Your task to perform on an android device: Open Google Chrome and click the shortcut for Amazon.com Image 0: 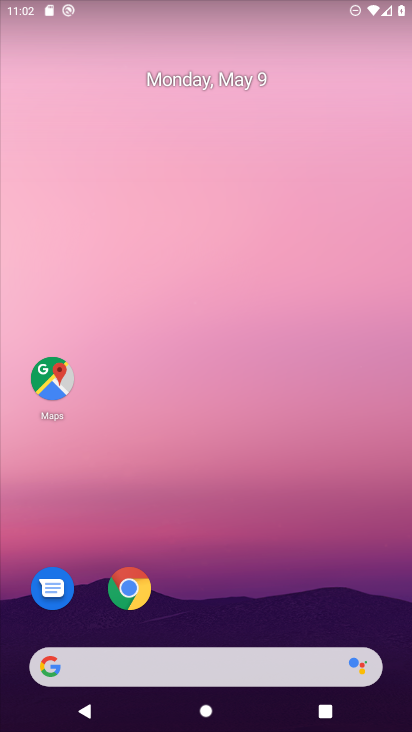
Step 0: click (134, 604)
Your task to perform on an android device: Open Google Chrome and click the shortcut for Amazon.com Image 1: 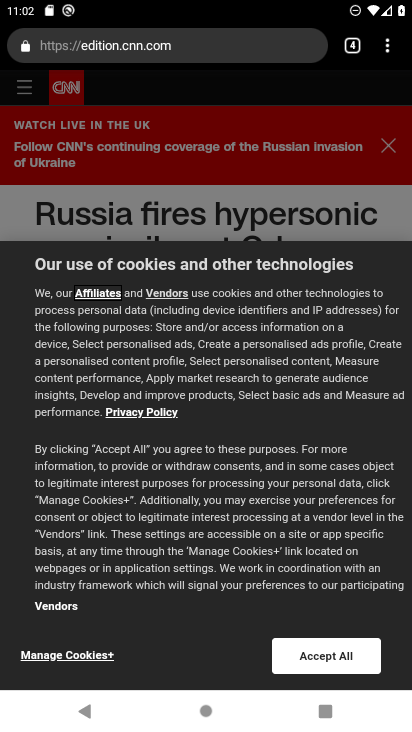
Step 1: click (355, 49)
Your task to perform on an android device: Open Google Chrome and click the shortcut for Amazon.com Image 2: 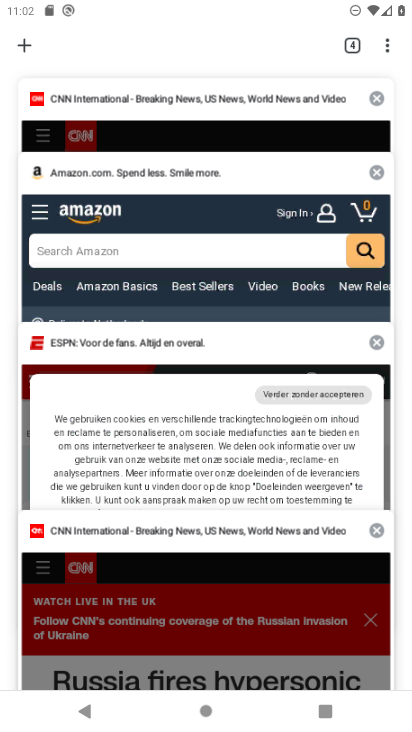
Step 2: click (31, 46)
Your task to perform on an android device: Open Google Chrome and click the shortcut for Amazon.com Image 3: 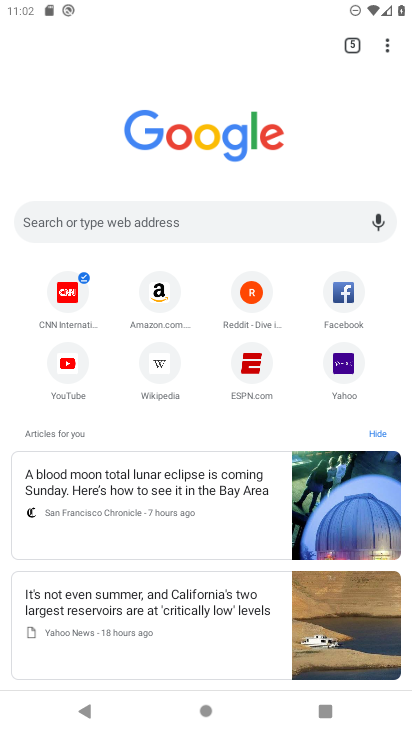
Step 3: click (159, 305)
Your task to perform on an android device: Open Google Chrome and click the shortcut for Amazon.com Image 4: 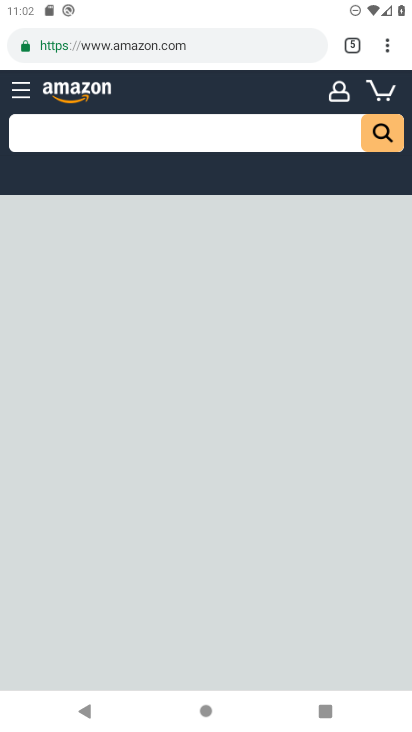
Step 4: task complete